Your task to perform on an android device: Open the phone app and click the voicemail tab. Image 0: 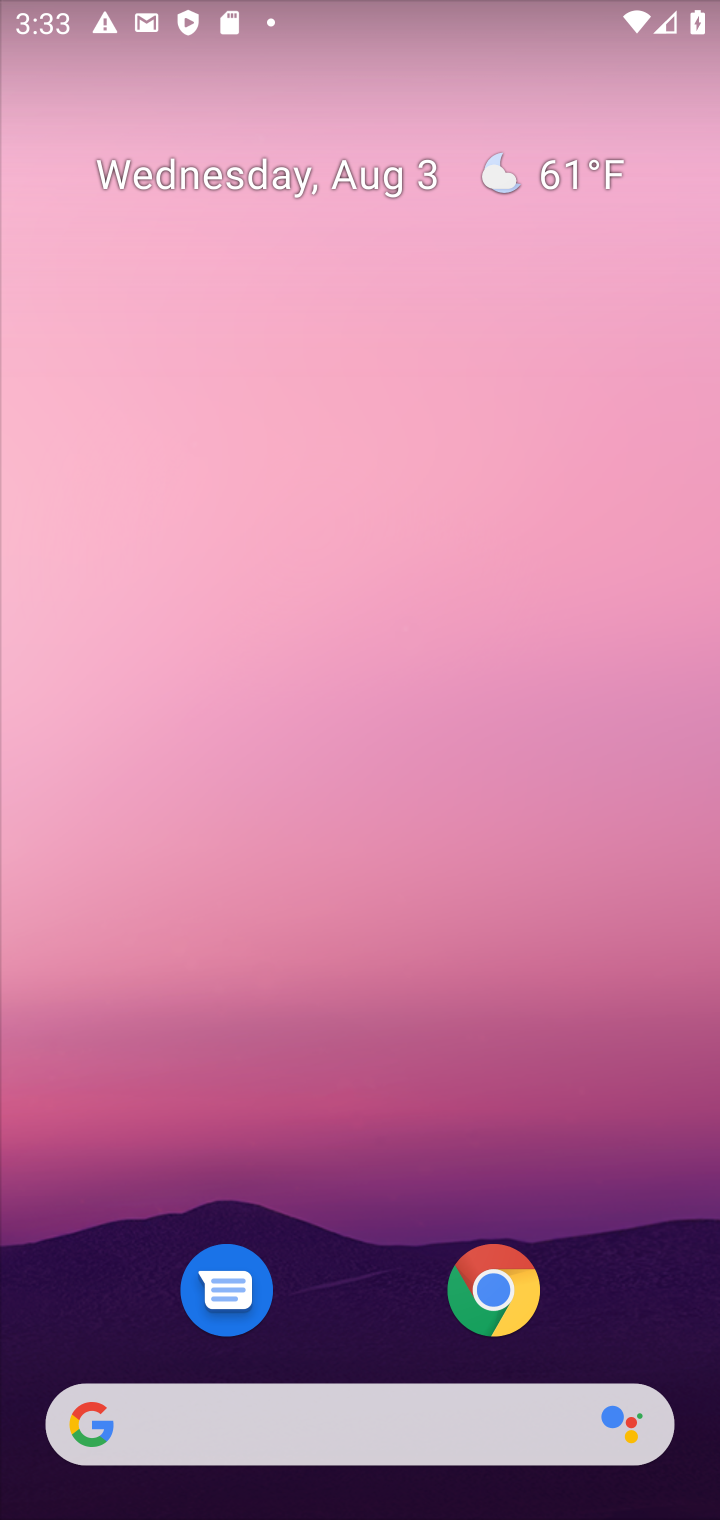
Step 0: drag from (105, 1019) to (146, 246)
Your task to perform on an android device: Open the phone app and click the voicemail tab. Image 1: 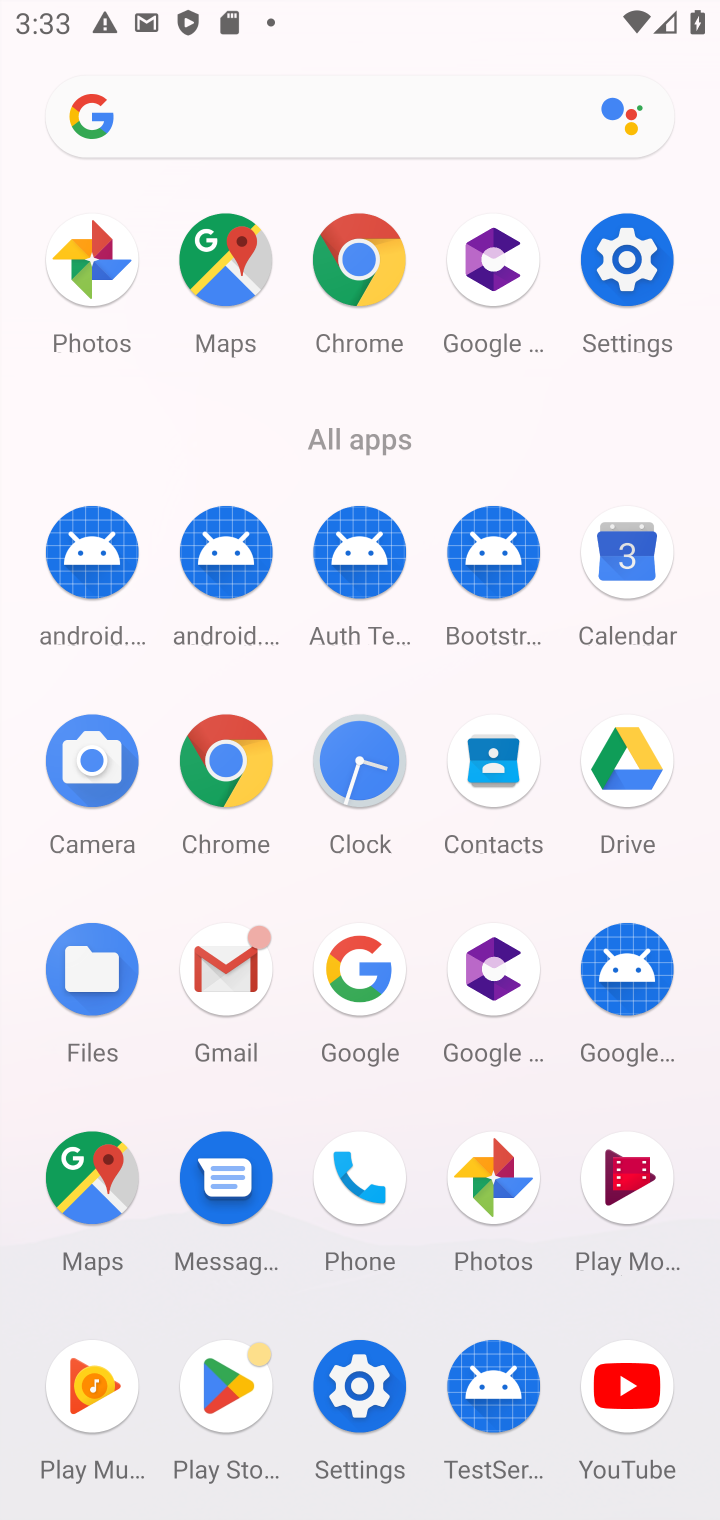
Step 1: click (365, 1184)
Your task to perform on an android device: Open the phone app and click the voicemail tab. Image 2: 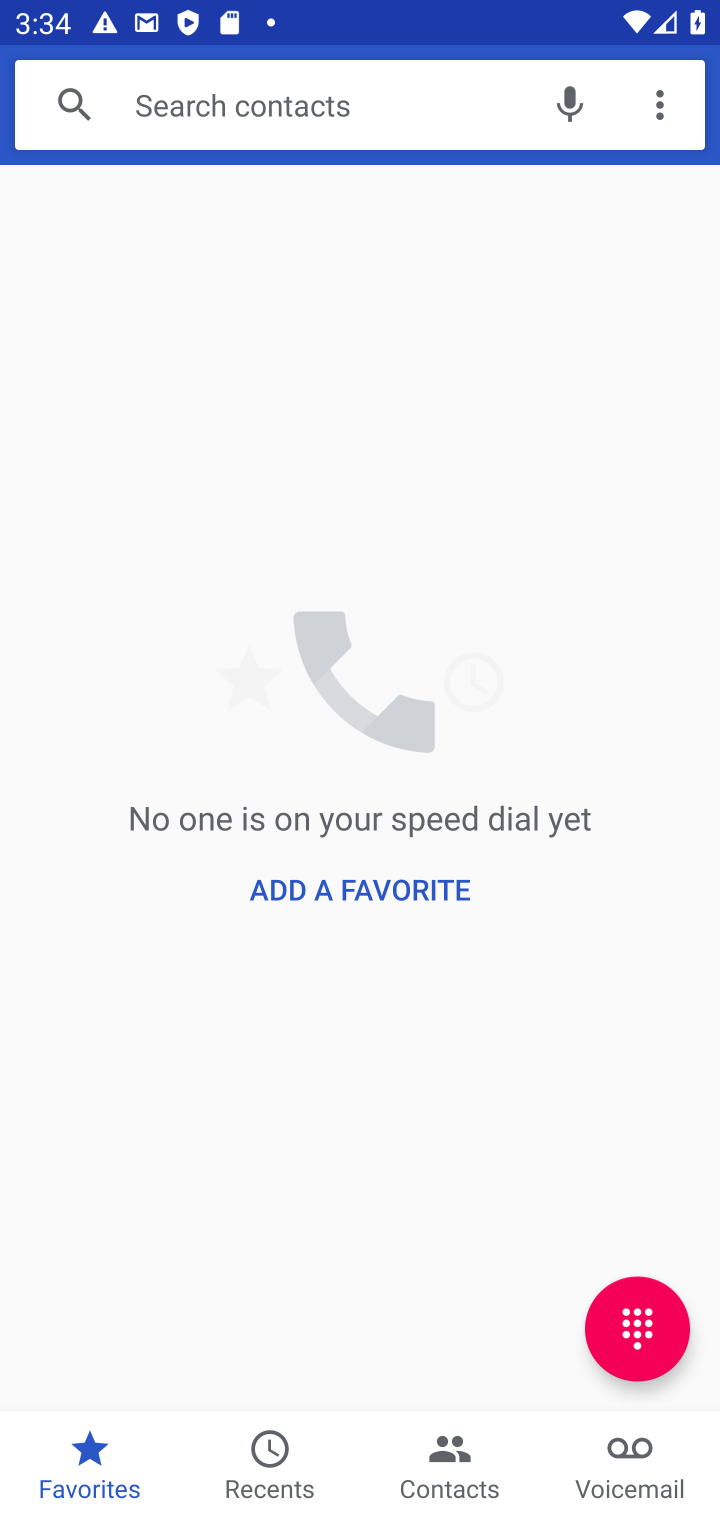
Step 2: click (625, 1477)
Your task to perform on an android device: Open the phone app and click the voicemail tab. Image 3: 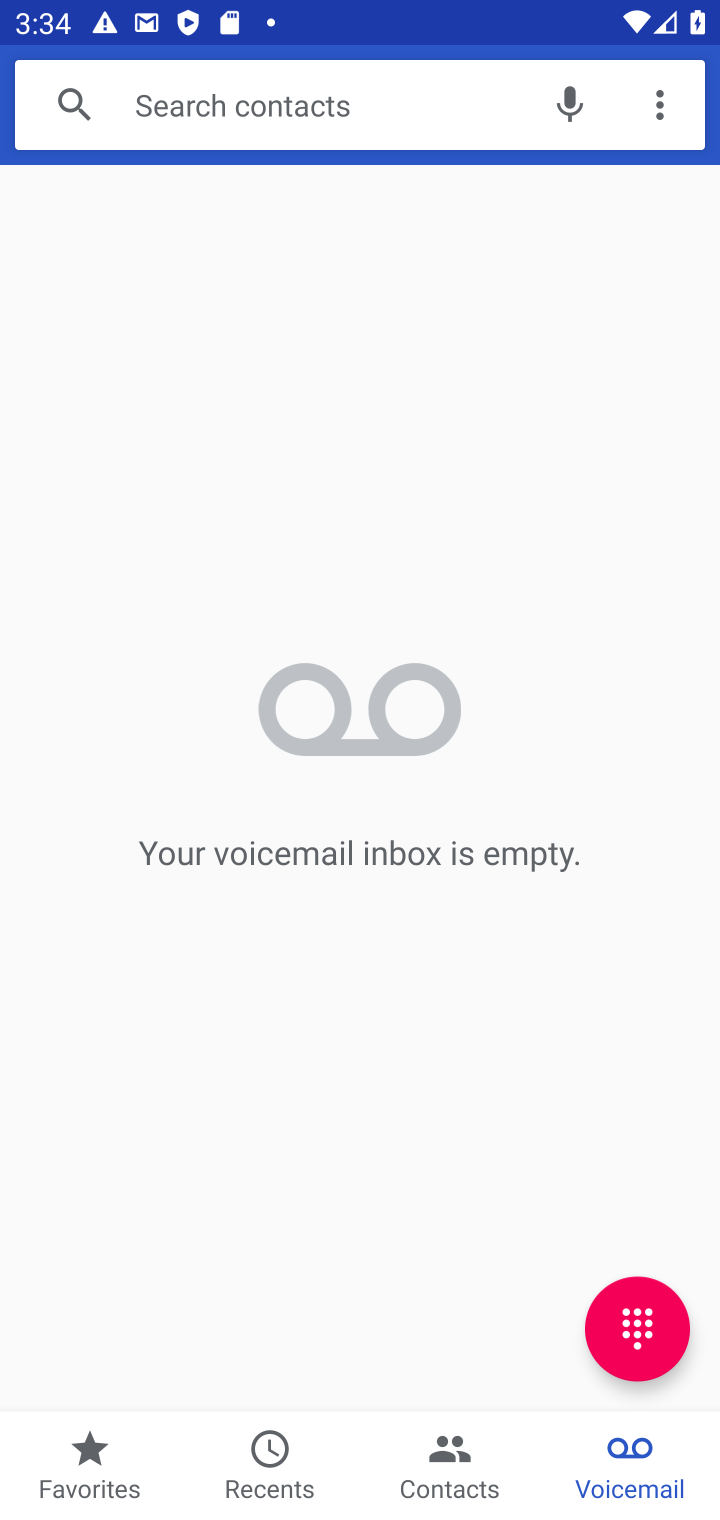
Step 3: task complete